Your task to perform on an android device: turn on airplane mode Image 0: 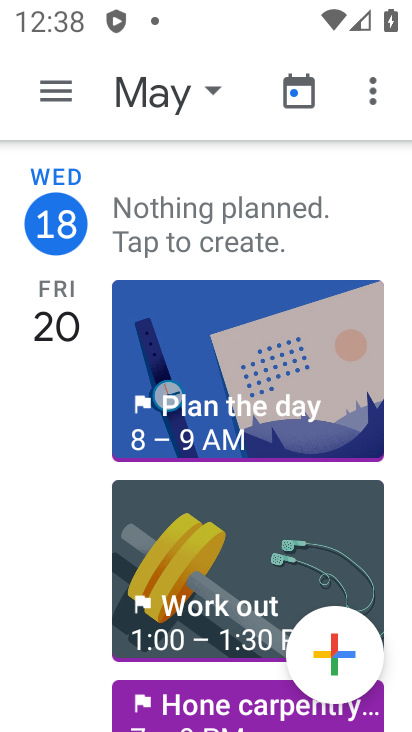
Step 0: press home button
Your task to perform on an android device: turn on airplane mode Image 1: 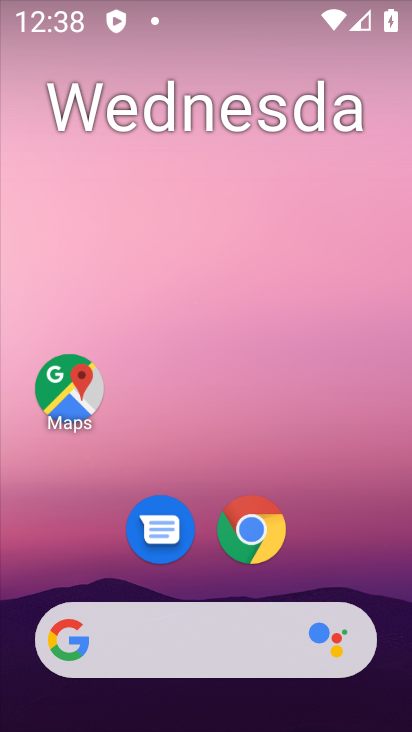
Step 1: drag from (219, 722) to (165, 145)
Your task to perform on an android device: turn on airplane mode Image 2: 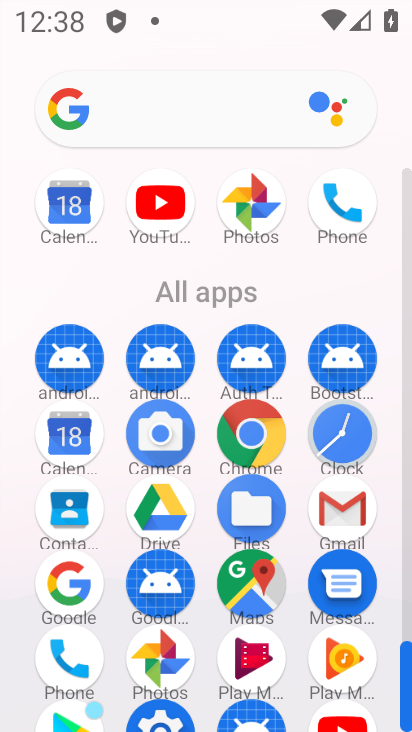
Step 2: drag from (205, 587) to (196, 220)
Your task to perform on an android device: turn on airplane mode Image 3: 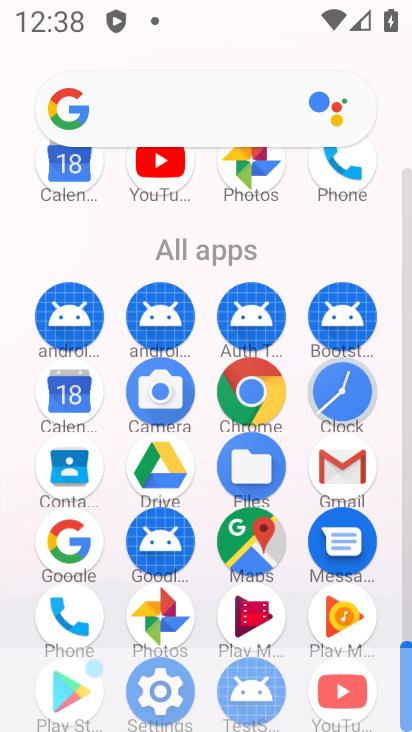
Step 3: click (161, 684)
Your task to perform on an android device: turn on airplane mode Image 4: 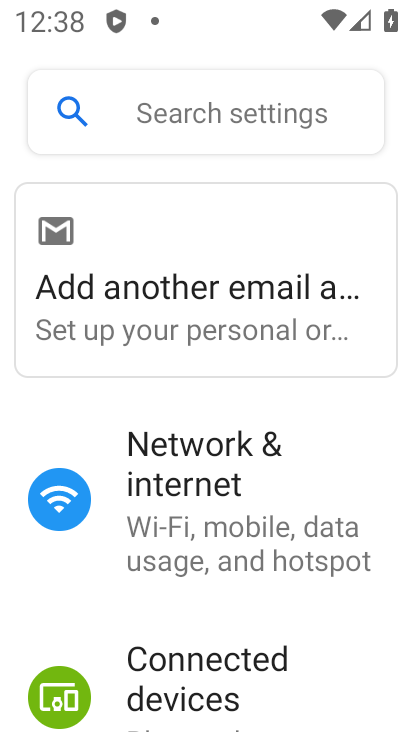
Step 4: drag from (252, 635) to (249, 310)
Your task to perform on an android device: turn on airplane mode Image 5: 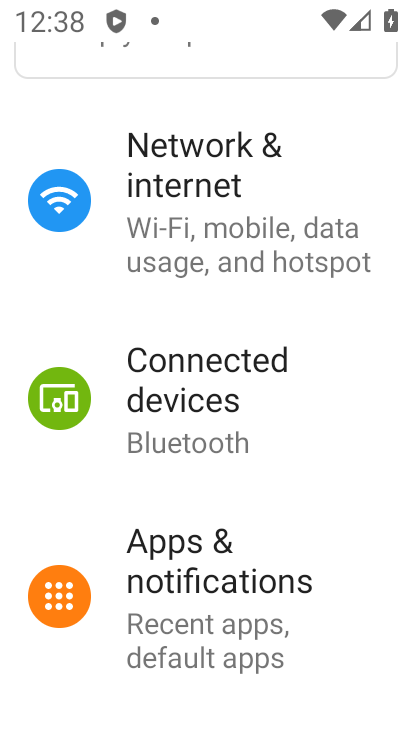
Step 5: drag from (240, 640) to (228, 672)
Your task to perform on an android device: turn on airplane mode Image 6: 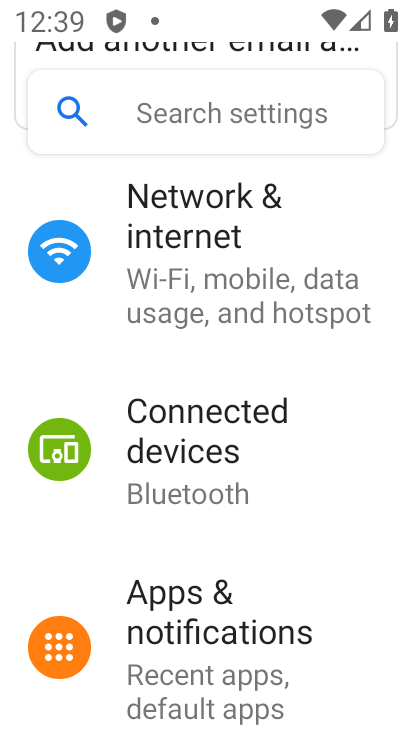
Step 6: drag from (225, 217) to (232, 530)
Your task to perform on an android device: turn on airplane mode Image 7: 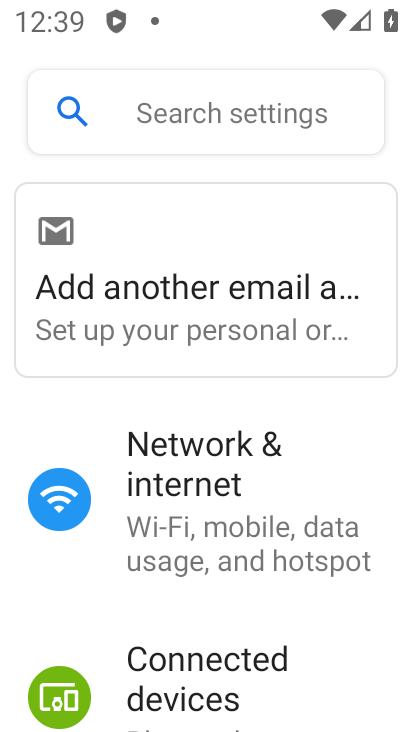
Step 7: click (195, 461)
Your task to perform on an android device: turn on airplane mode Image 8: 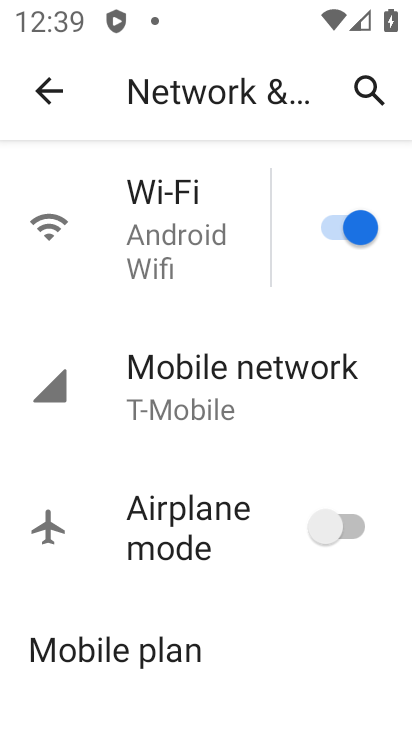
Step 8: click (355, 527)
Your task to perform on an android device: turn on airplane mode Image 9: 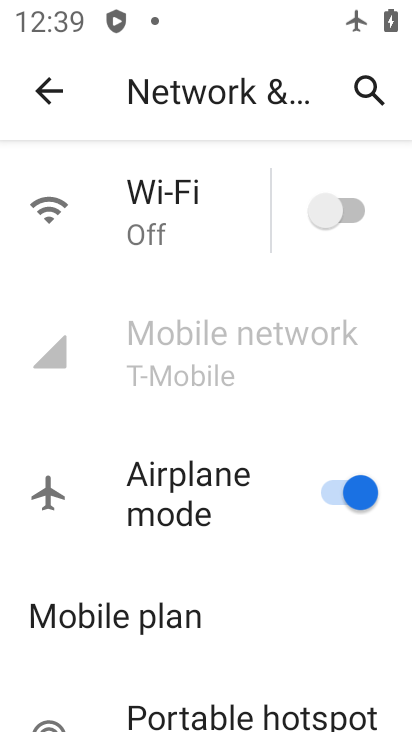
Step 9: task complete